Your task to perform on an android device: Open internet settings Image 0: 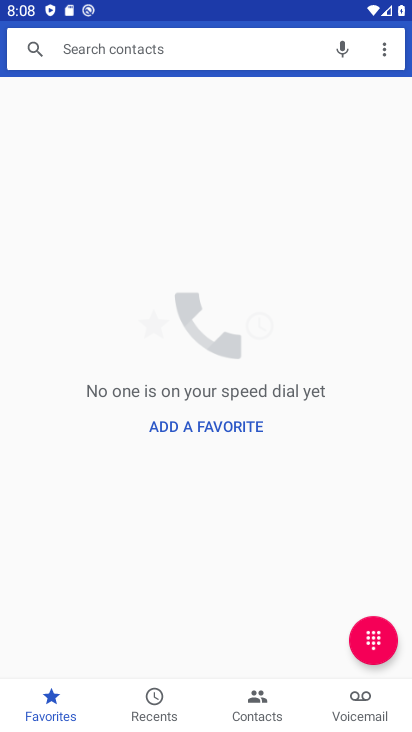
Step 0: press home button
Your task to perform on an android device: Open internet settings Image 1: 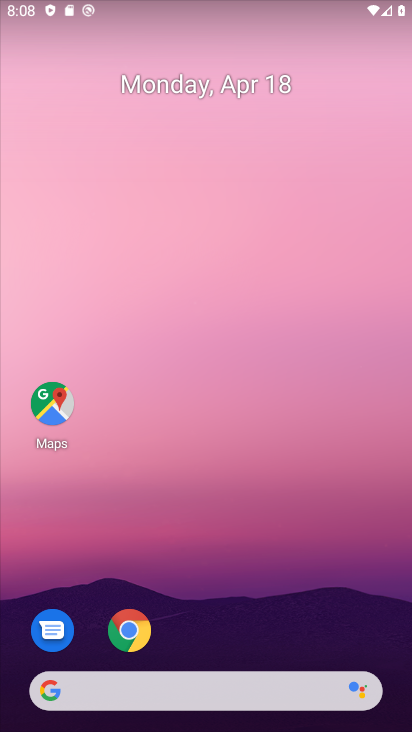
Step 1: drag from (219, 615) to (335, 83)
Your task to perform on an android device: Open internet settings Image 2: 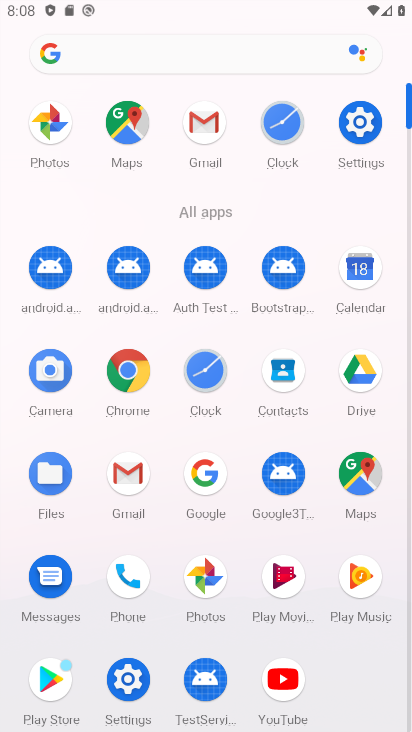
Step 2: click (137, 686)
Your task to perform on an android device: Open internet settings Image 3: 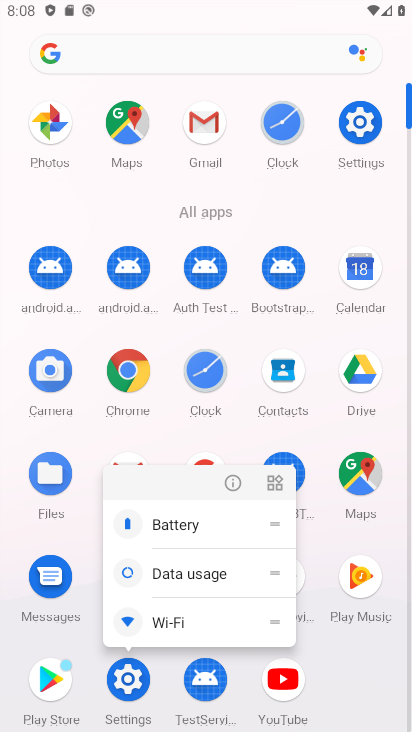
Step 3: click (137, 685)
Your task to perform on an android device: Open internet settings Image 4: 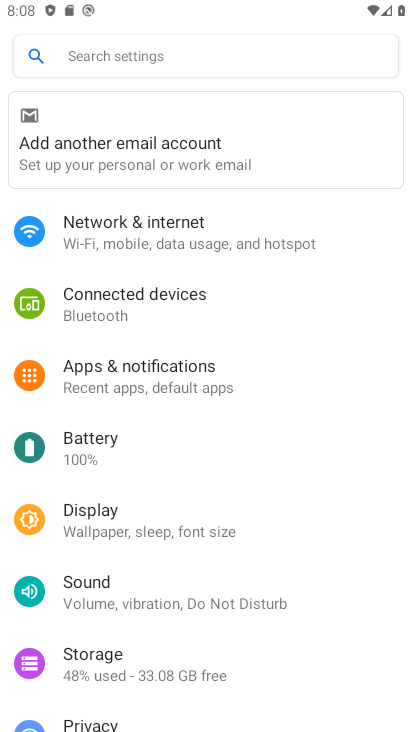
Step 4: click (150, 245)
Your task to perform on an android device: Open internet settings Image 5: 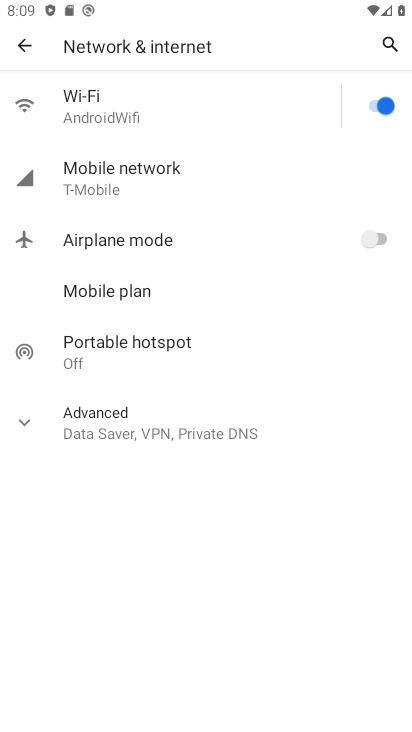
Step 5: task complete